Your task to perform on an android device: Search for panasonic triple a on ebay.com, select the first entry, add it to the cart, then select checkout. Image 0: 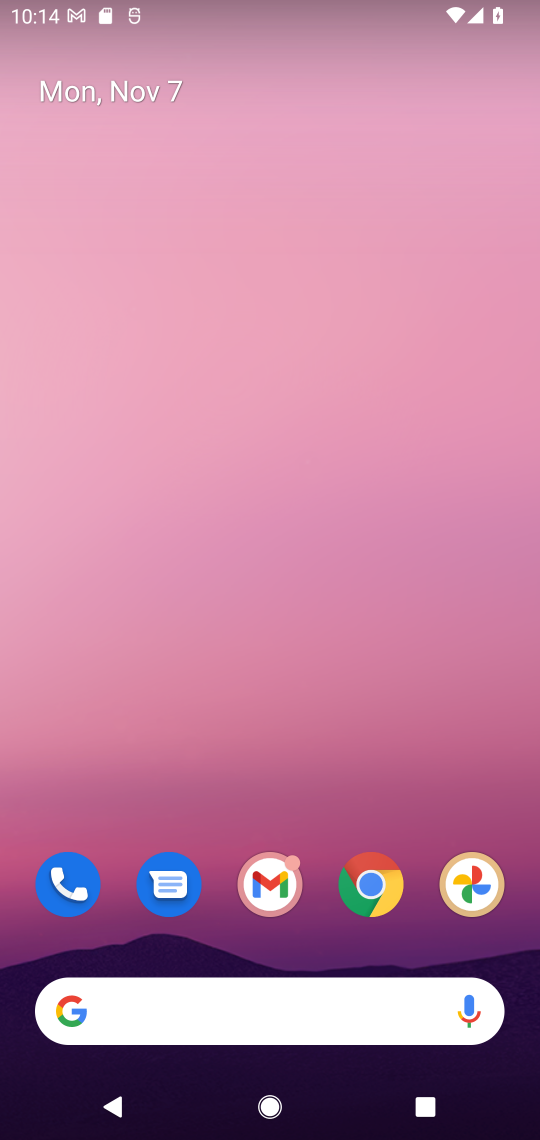
Step 0: click (369, 887)
Your task to perform on an android device: Search for panasonic triple a on ebay.com, select the first entry, add it to the cart, then select checkout. Image 1: 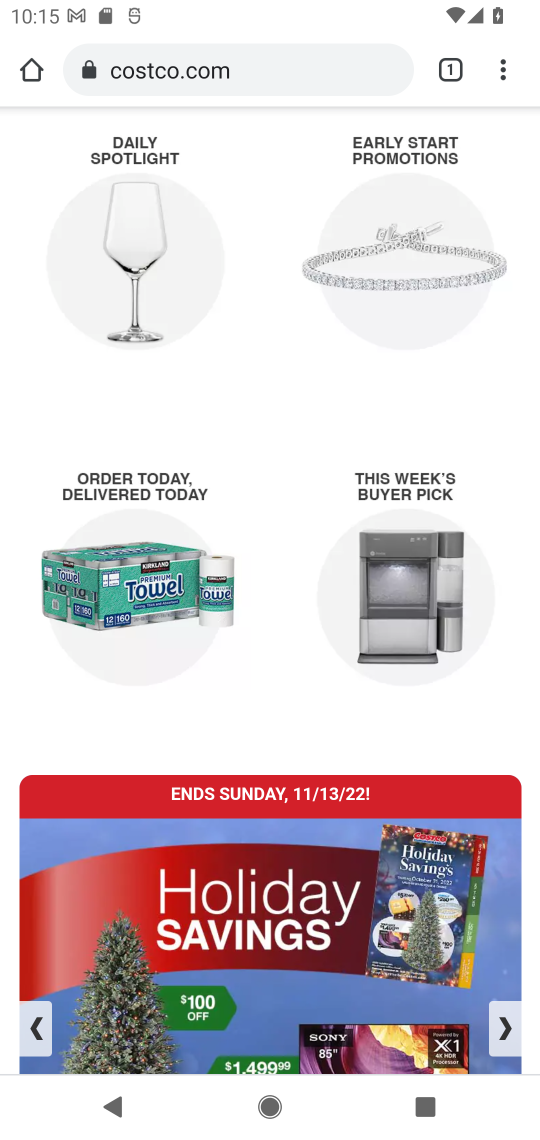
Step 1: click (35, 72)
Your task to perform on an android device: Search for panasonic triple a on ebay.com, select the first entry, add it to the cart, then select checkout. Image 2: 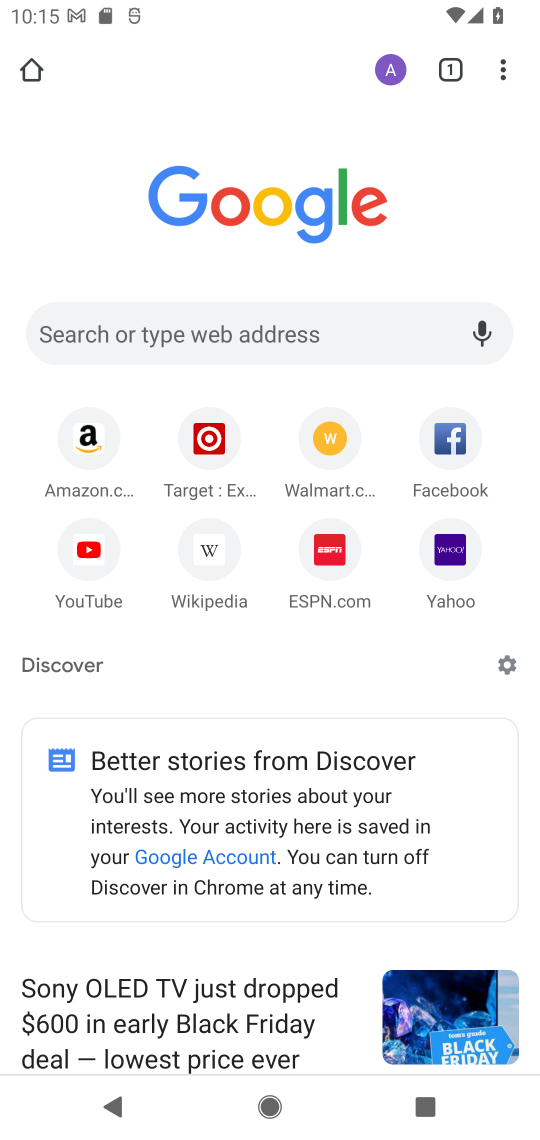
Step 2: click (236, 326)
Your task to perform on an android device: Search for panasonic triple a on ebay.com, select the first entry, add it to the cart, then select checkout. Image 3: 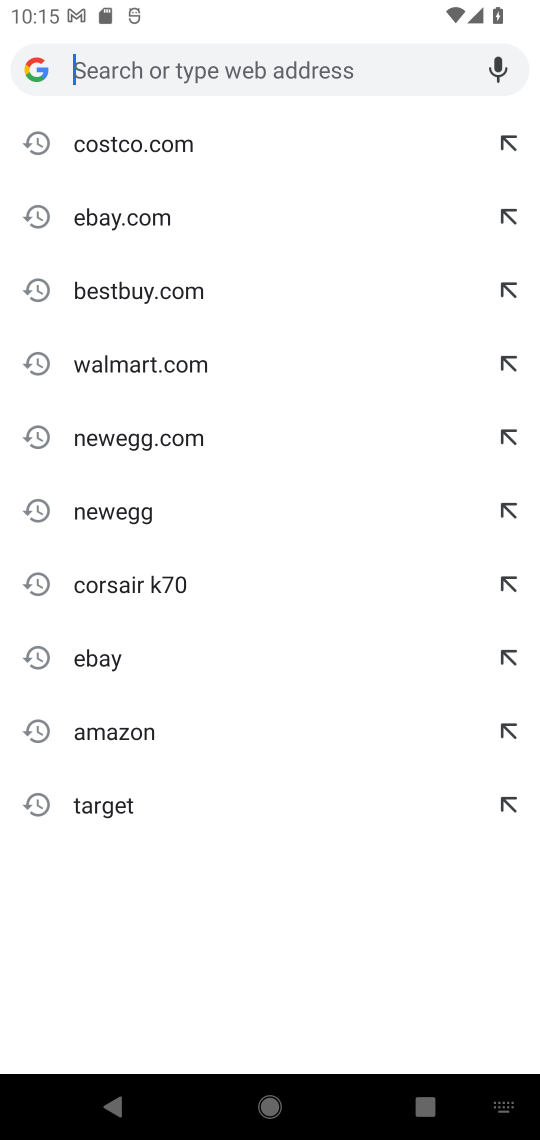
Step 3: click (148, 215)
Your task to perform on an android device: Search for panasonic triple a on ebay.com, select the first entry, add it to the cart, then select checkout. Image 4: 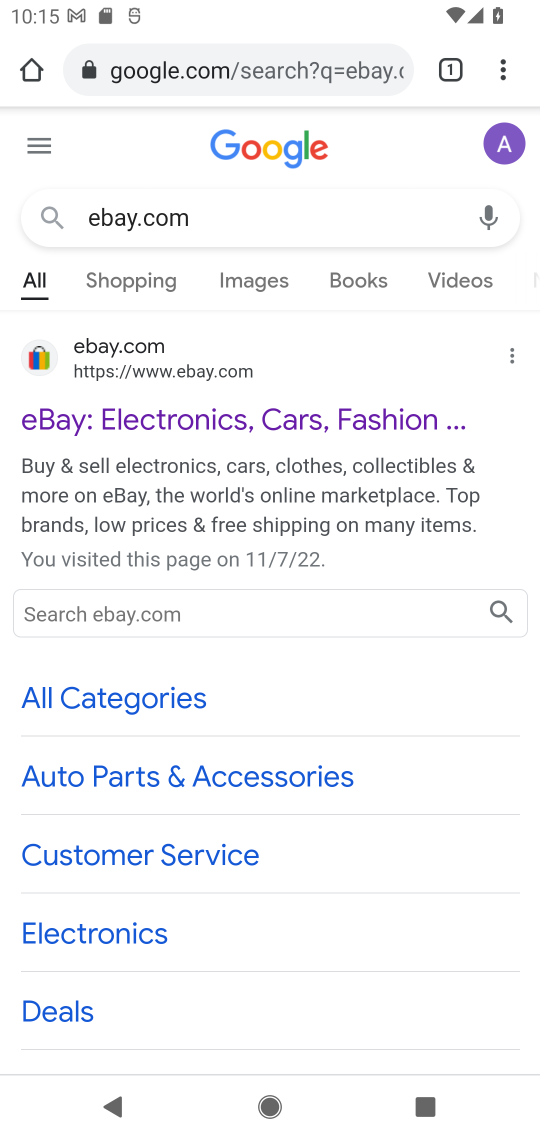
Step 4: click (185, 358)
Your task to perform on an android device: Search for panasonic triple a on ebay.com, select the first entry, add it to the cart, then select checkout. Image 5: 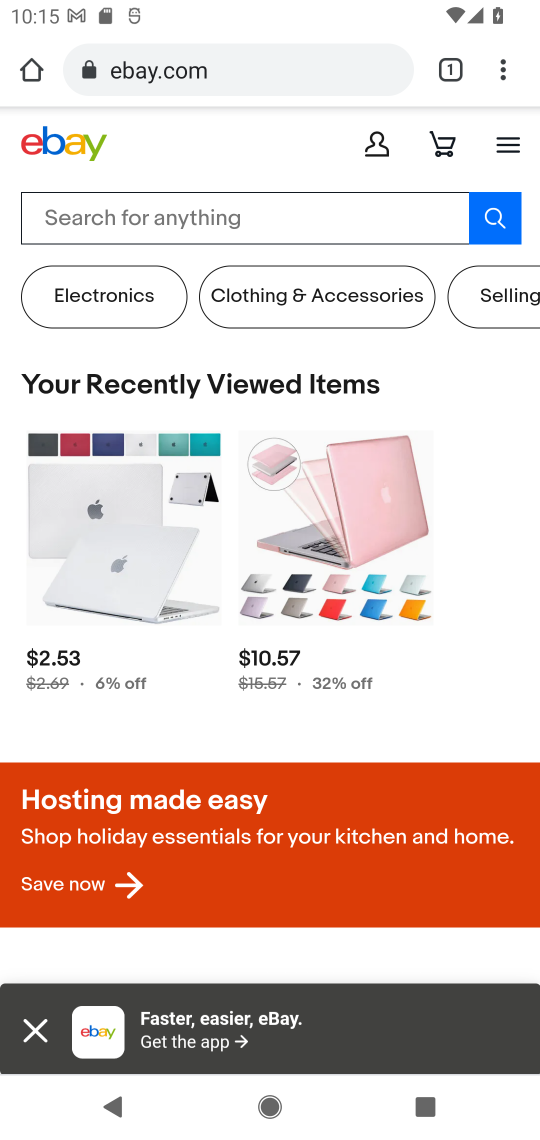
Step 5: click (245, 230)
Your task to perform on an android device: Search for panasonic triple a on ebay.com, select the first entry, add it to the cart, then select checkout. Image 6: 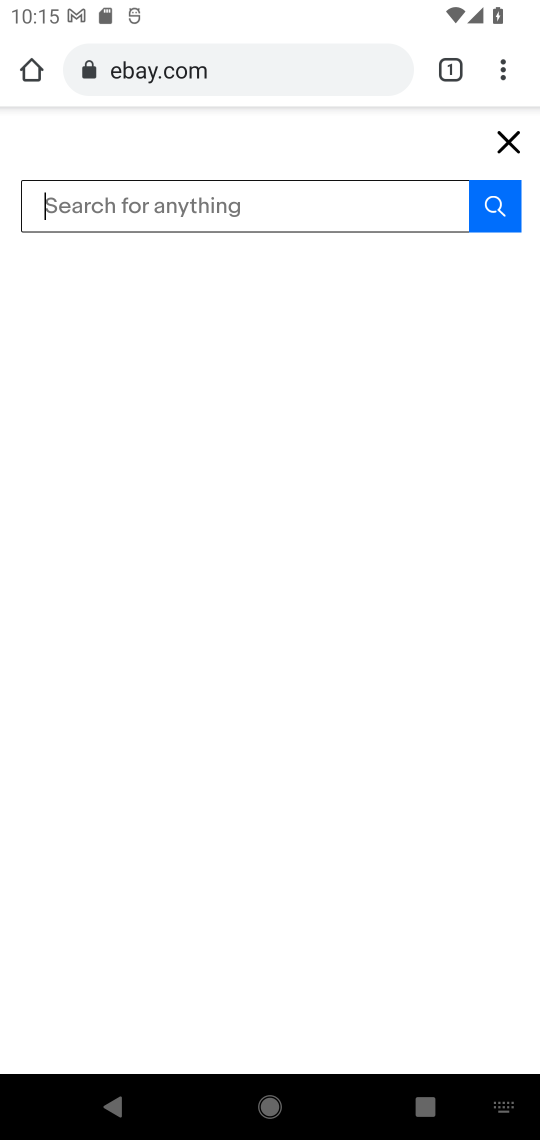
Step 6: type "panasonic triple a"
Your task to perform on an android device: Search for panasonic triple a on ebay.com, select the first entry, add it to the cart, then select checkout. Image 7: 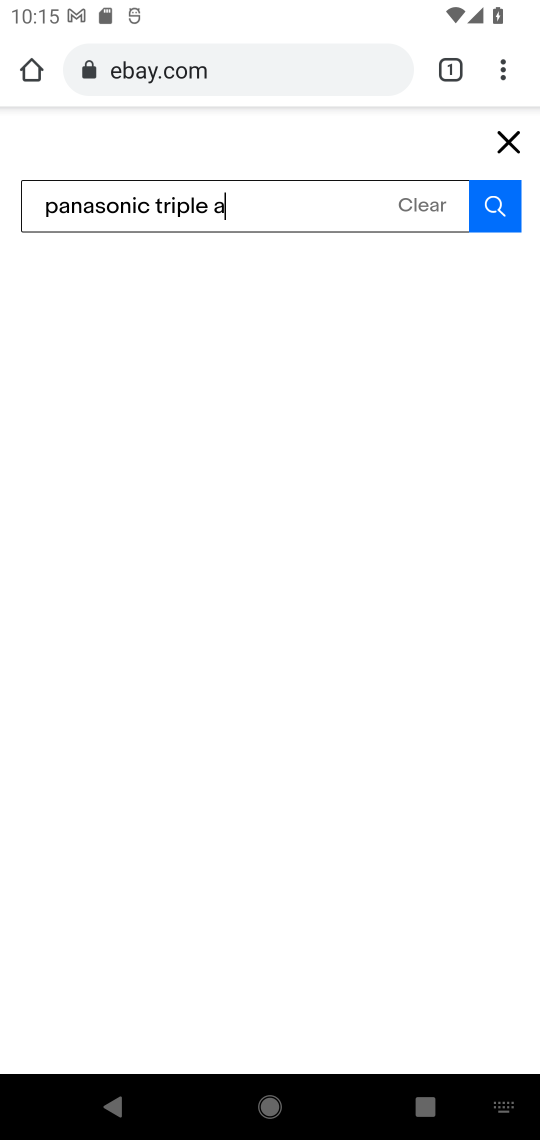
Step 7: click (339, 384)
Your task to perform on an android device: Search for panasonic triple a on ebay.com, select the first entry, add it to the cart, then select checkout. Image 8: 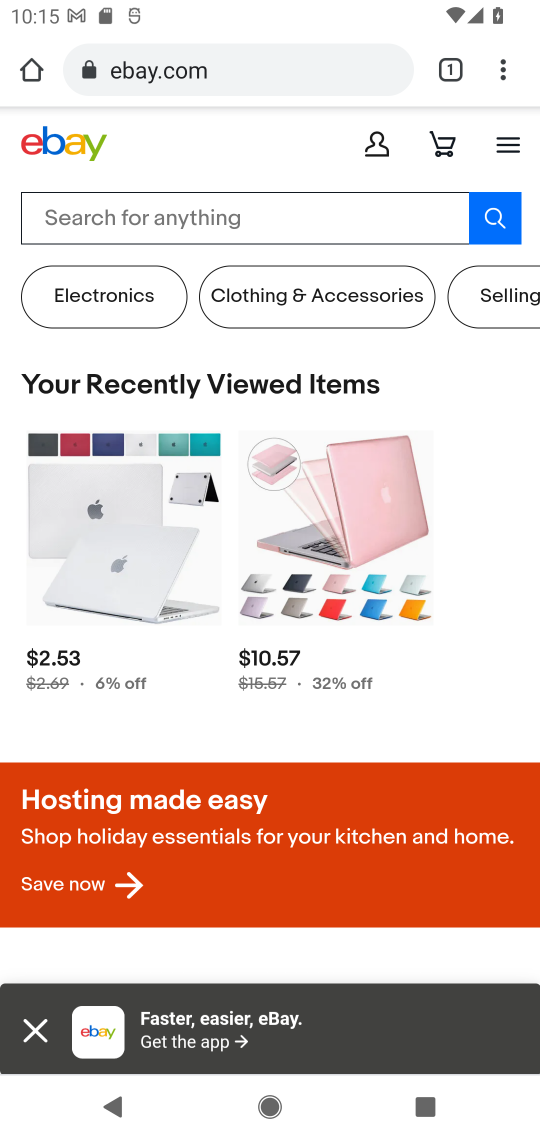
Step 8: click (273, 219)
Your task to perform on an android device: Search for panasonic triple a on ebay.com, select the first entry, add it to the cart, then select checkout. Image 9: 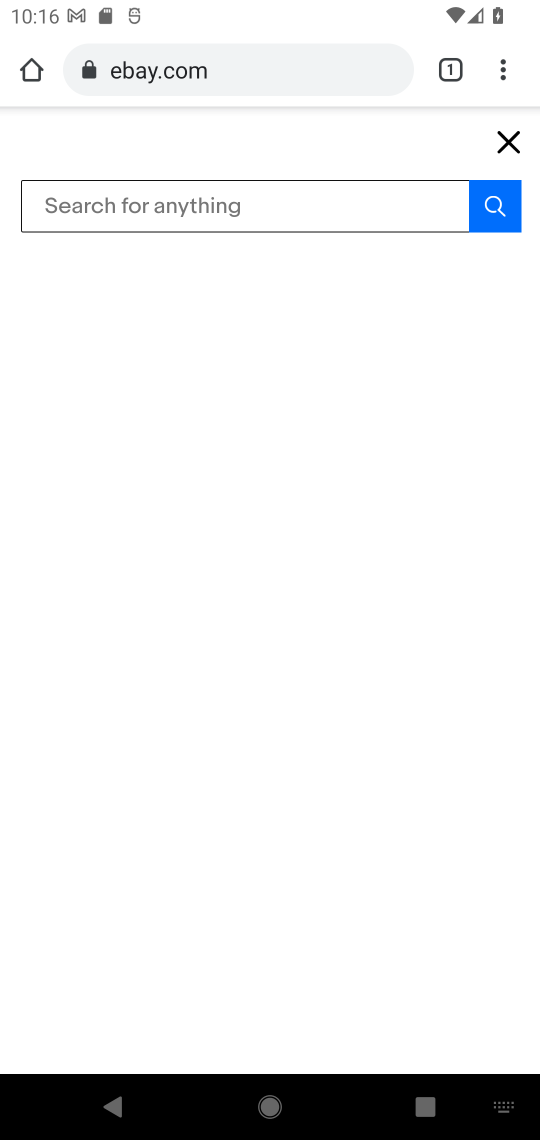
Step 9: type "panasonic triple a "
Your task to perform on an android device: Search for panasonic triple a on ebay.com, select the first entry, add it to the cart, then select checkout. Image 10: 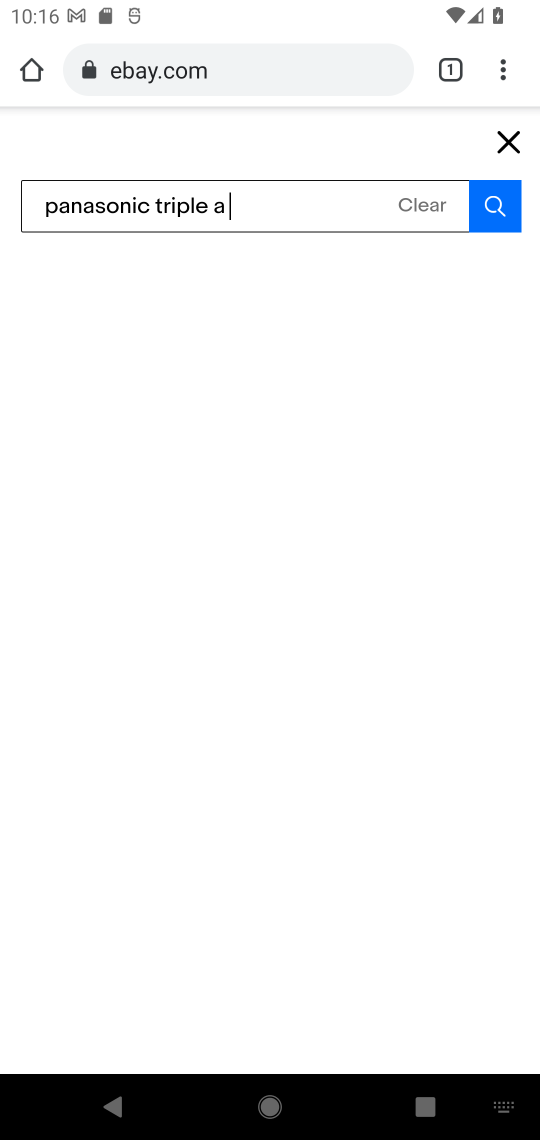
Step 10: click (143, 514)
Your task to perform on an android device: Search for panasonic triple a on ebay.com, select the first entry, add it to the cart, then select checkout. Image 11: 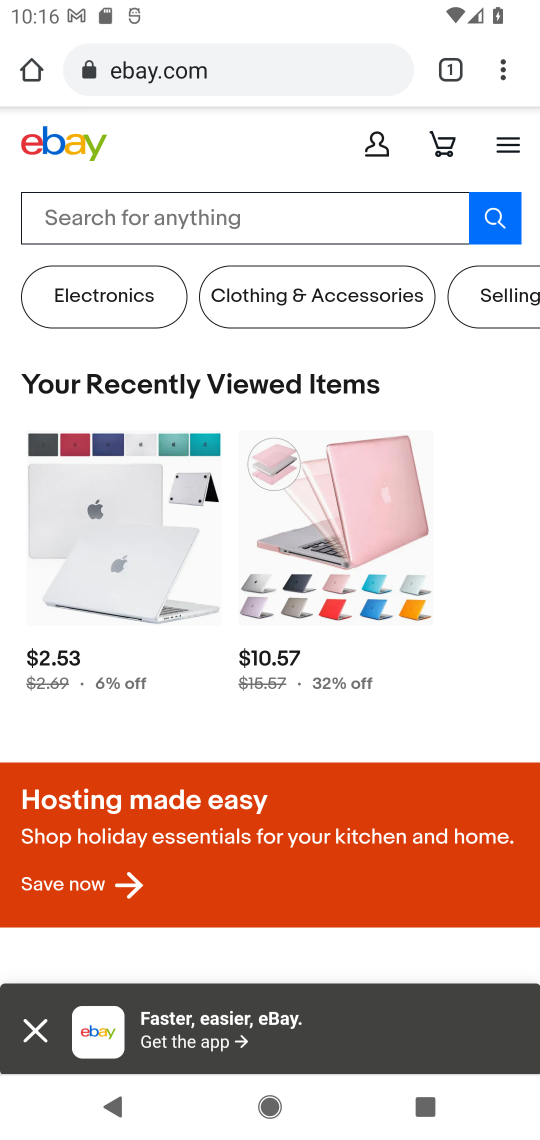
Step 11: task complete